Your task to perform on an android device: Go to privacy settings Image 0: 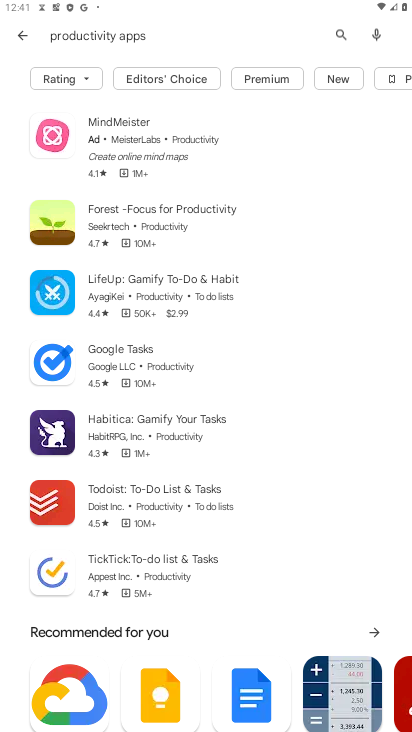
Step 0: press home button
Your task to perform on an android device: Go to privacy settings Image 1: 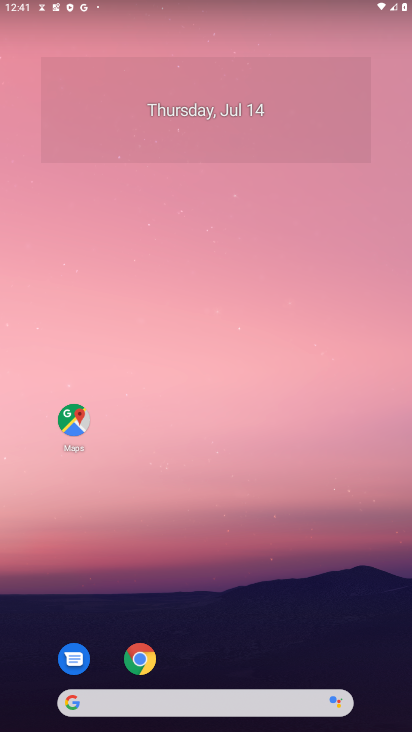
Step 1: drag from (34, 699) to (161, 291)
Your task to perform on an android device: Go to privacy settings Image 2: 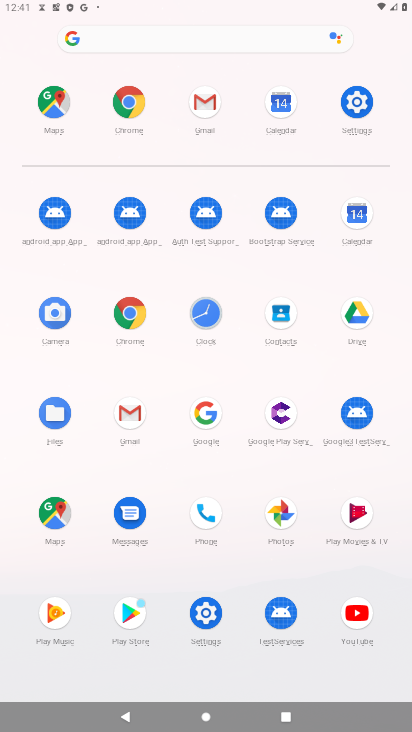
Step 2: click (210, 615)
Your task to perform on an android device: Go to privacy settings Image 3: 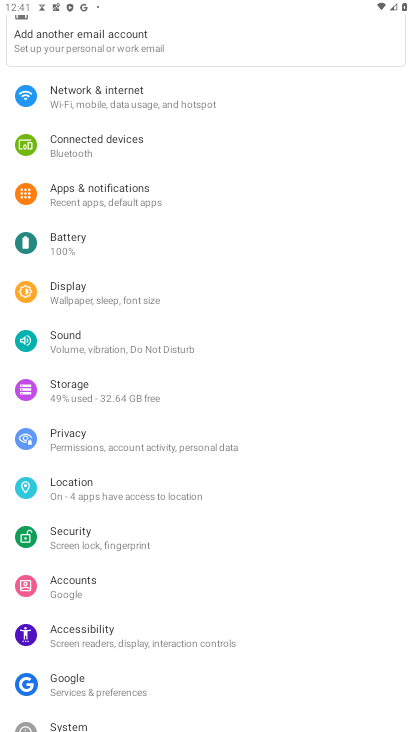
Step 3: click (84, 436)
Your task to perform on an android device: Go to privacy settings Image 4: 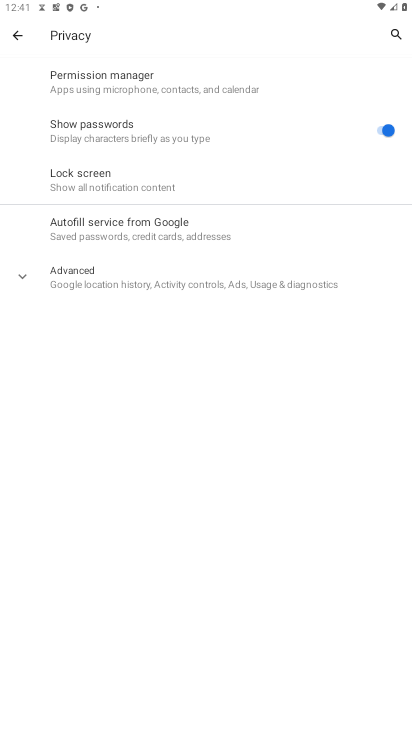
Step 4: task complete